Your task to perform on an android device: create a new album in the google photos Image 0: 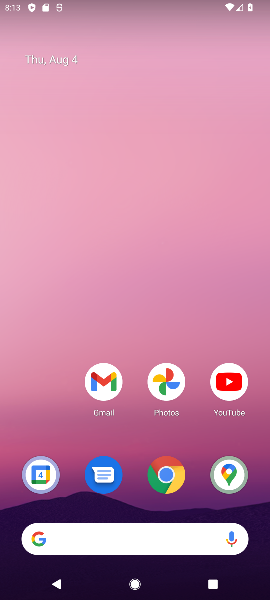
Step 0: drag from (128, 464) to (138, 31)
Your task to perform on an android device: create a new album in the google photos Image 1: 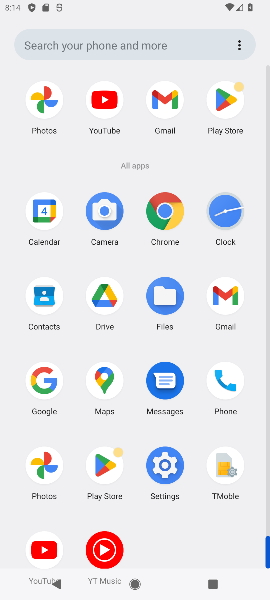
Step 1: drag from (149, 519) to (134, 23)
Your task to perform on an android device: create a new album in the google photos Image 2: 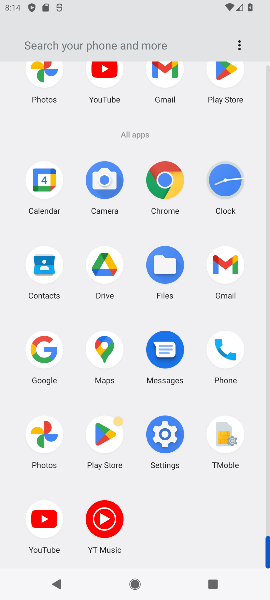
Step 2: click (52, 435)
Your task to perform on an android device: create a new album in the google photos Image 3: 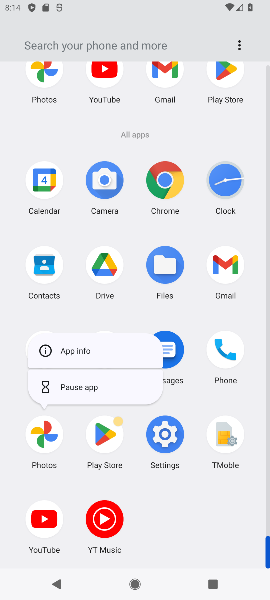
Step 3: click (93, 344)
Your task to perform on an android device: create a new album in the google photos Image 4: 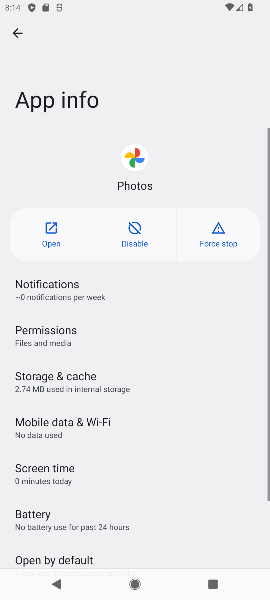
Step 4: click (51, 241)
Your task to perform on an android device: create a new album in the google photos Image 5: 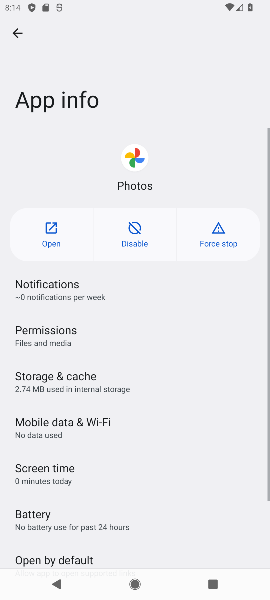
Step 5: click (52, 241)
Your task to perform on an android device: create a new album in the google photos Image 6: 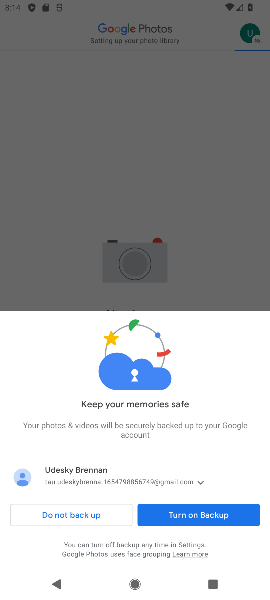
Step 6: click (173, 517)
Your task to perform on an android device: create a new album in the google photos Image 7: 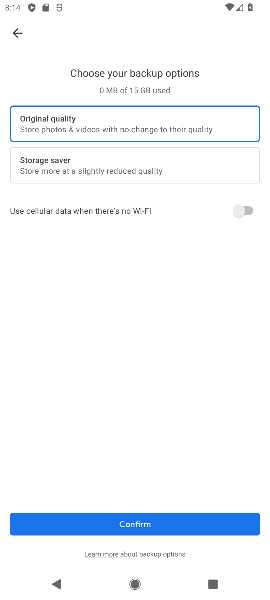
Step 7: click (175, 528)
Your task to perform on an android device: create a new album in the google photos Image 8: 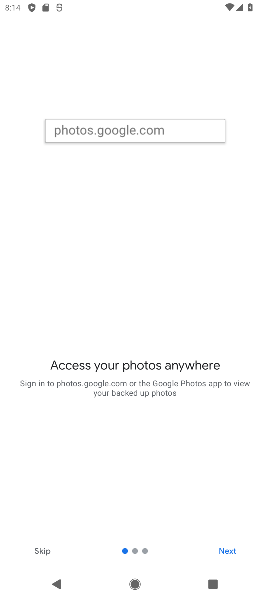
Step 8: click (231, 551)
Your task to perform on an android device: create a new album in the google photos Image 9: 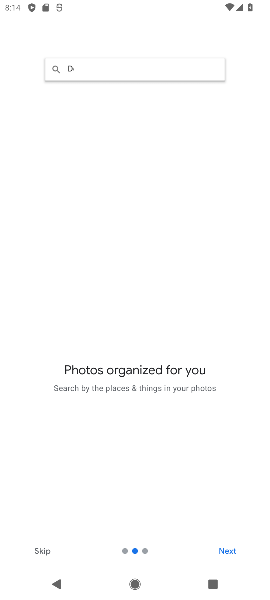
Step 9: click (231, 551)
Your task to perform on an android device: create a new album in the google photos Image 10: 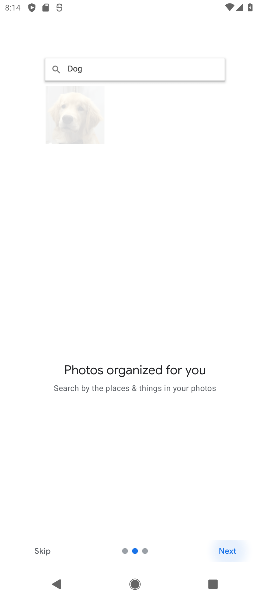
Step 10: click (230, 548)
Your task to perform on an android device: create a new album in the google photos Image 11: 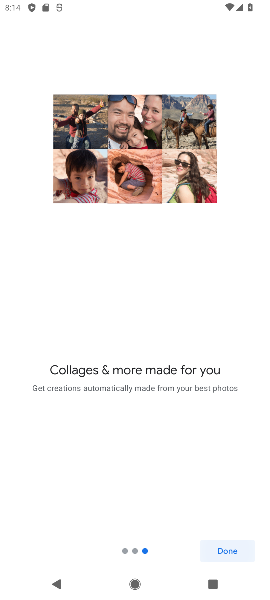
Step 11: click (230, 548)
Your task to perform on an android device: create a new album in the google photos Image 12: 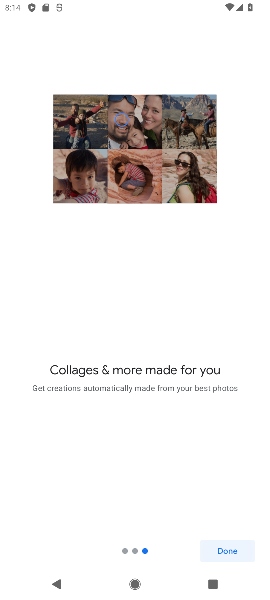
Step 12: click (230, 548)
Your task to perform on an android device: create a new album in the google photos Image 13: 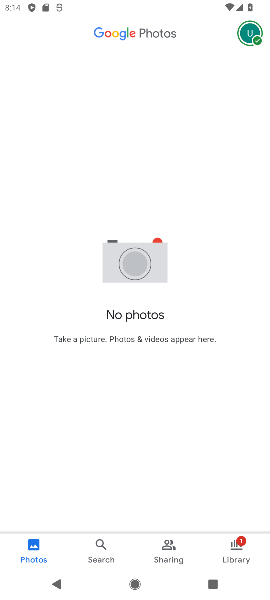
Step 13: drag from (149, 441) to (161, 205)
Your task to perform on an android device: create a new album in the google photos Image 14: 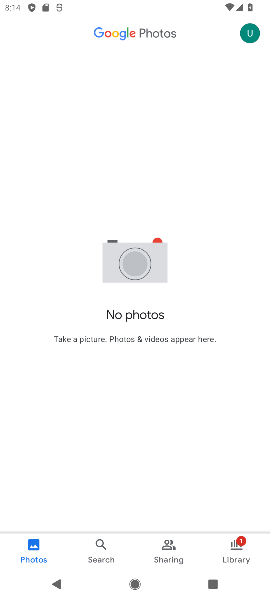
Step 14: drag from (159, 477) to (163, 237)
Your task to perform on an android device: create a new album in the google photos Image 15: 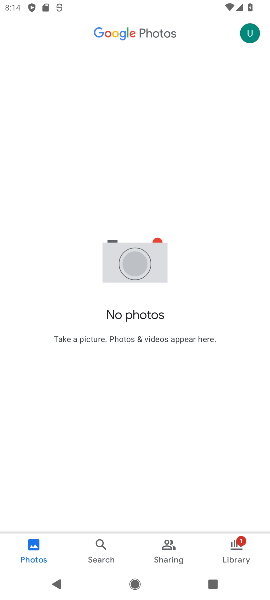
Step 15: drag from (143, 462) to (140, 82)
Your task to perform on an android device: create a new album in the google photos Image 16: 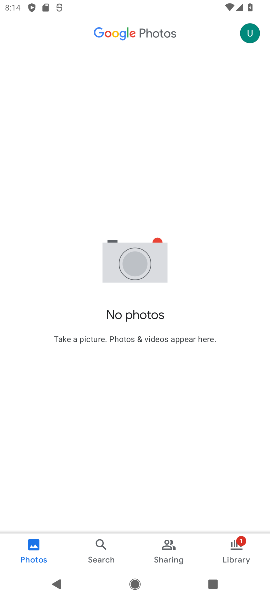
Step 16: drag from (145, 504) to (197, 172)
Your task to perform on an android device: create a new album in the google photos Image 17: 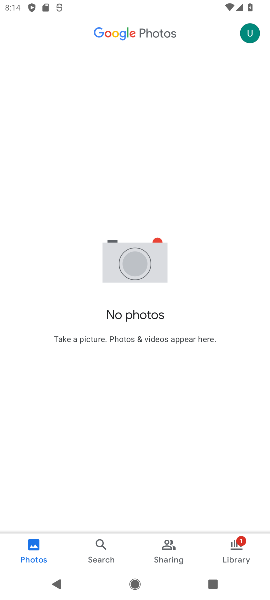
Step 17: click (228, 558)
Your task to perform on an android device: create a new album in the google photos Image 18: 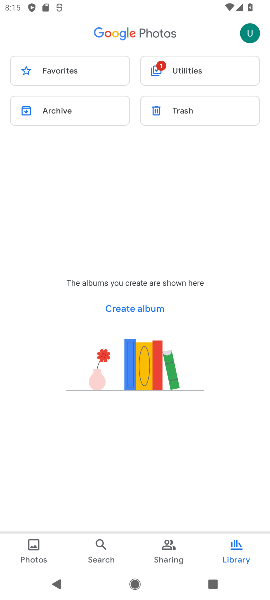
Step 18: click (121, 313)
Your task to perform on an android device: create a new album in the google photos Image 19: 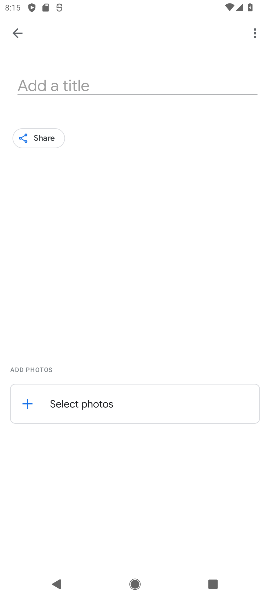
Step 19: click (72, 85)
Your task to perform on an android device: create a new album in the google photos Image 20: 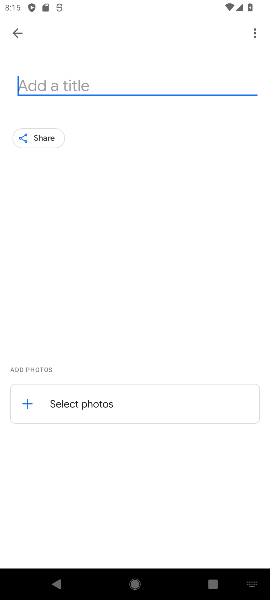
Step 20: click (42, 81)
Your task to perform on an android device: create a new album in the google photos Image 21: 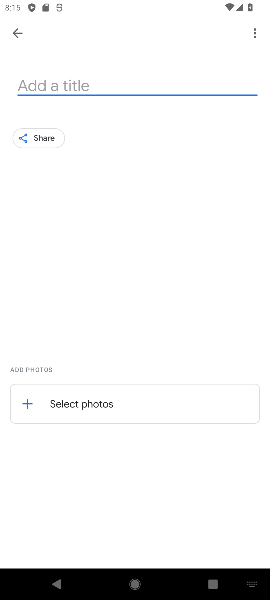
Step 21: drag from (94, 486) to (94, 282)
Your task to perform on an android device: create a new album in the google photos Image 22: 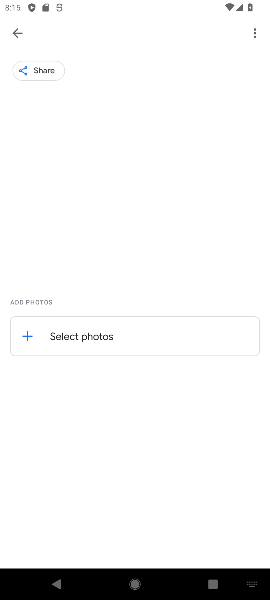
Step 22: drag from (129, 202) to (187, 521)
Your task to perform on an android device: create a new album in the google photos Image 23: 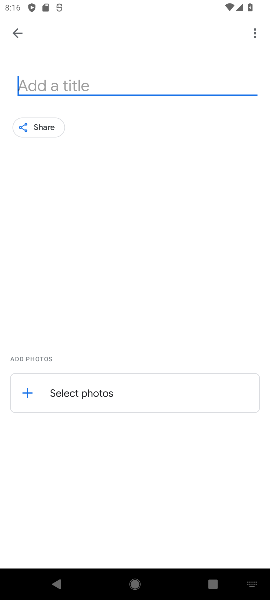
Step 23: drag from (143, 169) to (175, 528)
Your task to perform on an android device: create a new album in the google photos Image 24: 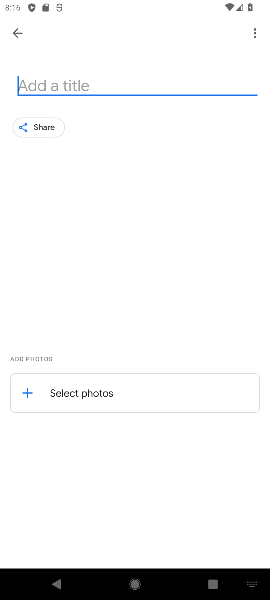
Step 24: drag from (62, 145) to (188, 587)
Your task to perform on an android device: create a new album in the google photos Image 25: 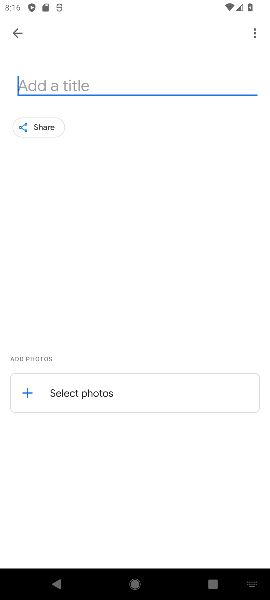
Step 25: click (65, 83)
Your task to perform on an android device: create a new album in the google photos Image 26: 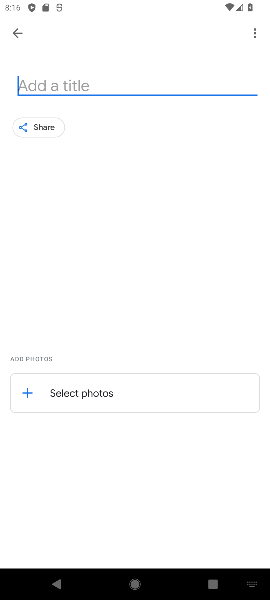
Step 26: type "majsla"
Your task to perform on an android device: create a new album in the google photos Image 27: 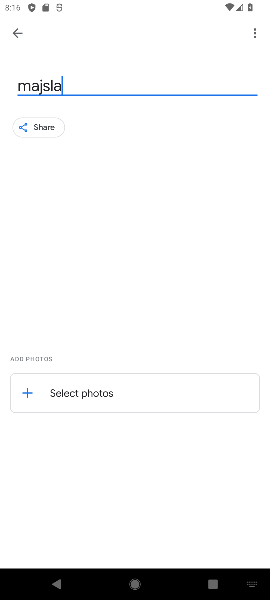
Step 27: click (46, 398)
Your task to perform on an android device: create a new album in the google photos Image 28: 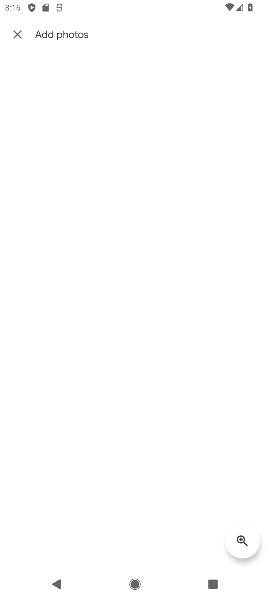
Step 28: drag from (135, 158) to (152, 446)
Your task to perform on an android device: create a new album in the google photos Image 29: 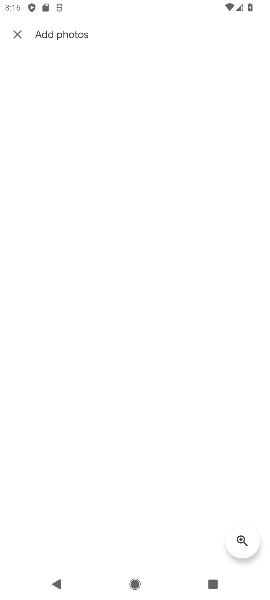
Step 29: click (149, 161)
Your task to perform on an android device: create a new album in the google photos Image 30: 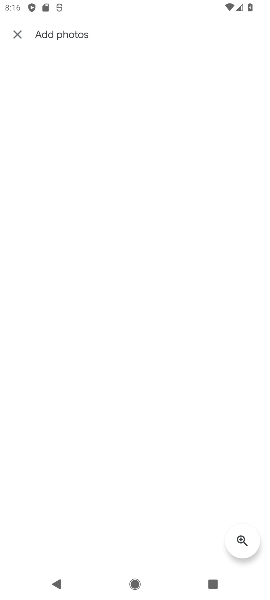
Step 30: click (140, 105)
Your task to perform on an android device: create a new album in the google photos Image 31: 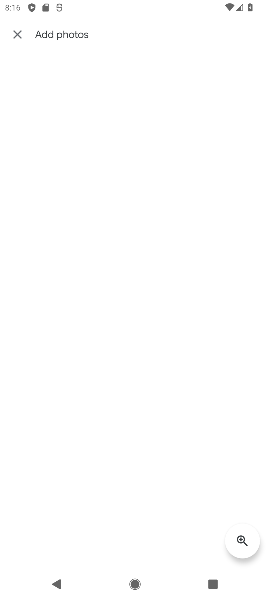
Step 31: click (98, 91)
Your task to perform on an android device: create a new album in the google photos Image 32: 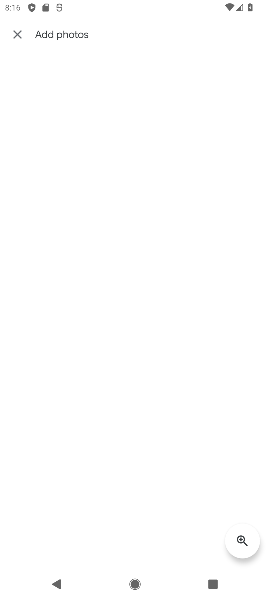
Step 32: task complete